Your task to perform on an android device: star an email in the gmail app Image 0: 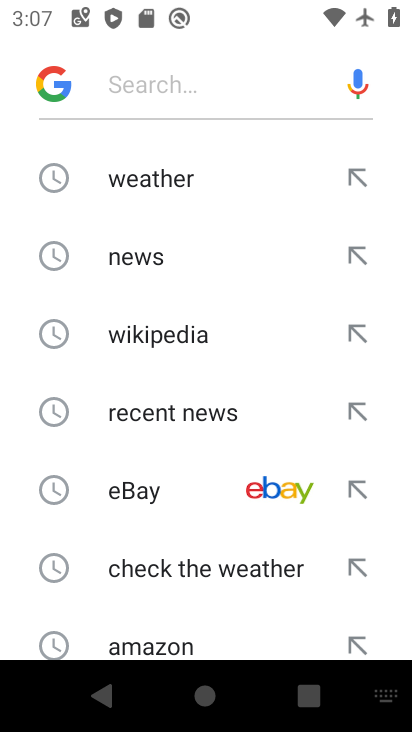
Step 0: press home button
Your task to perform on an android device: star an email in the gmail app Image 1: 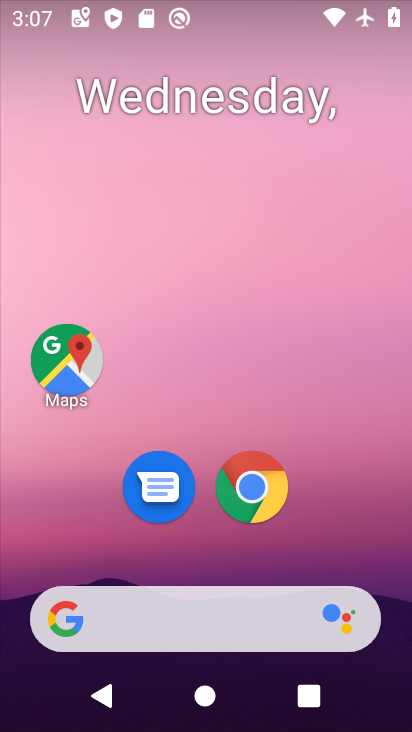
Step 1: drag from (364, 475) to (367, 101)
Your task to perform on an android device: star an email in the gmail app Image 2: 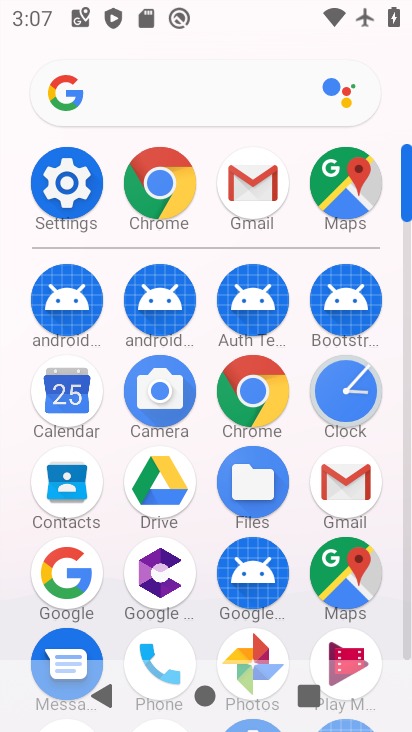
Step 2: click (283, 173)
Your task to perform on an android device: star an email in the gmail app Image 3: 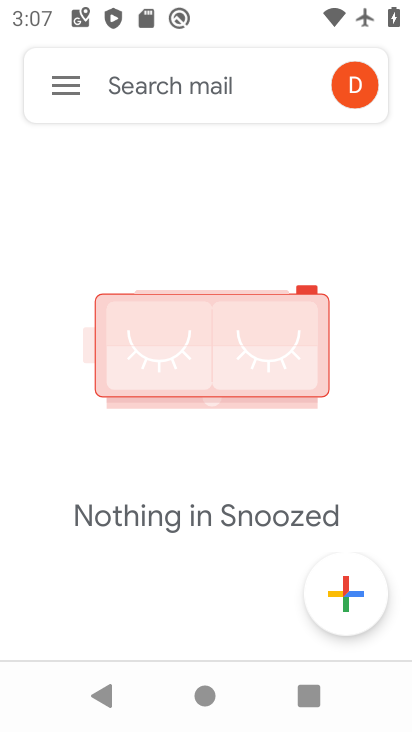
Step 3: click (58, 109)
Your task to perform on an android device: star an email in the gmail app Image 4: 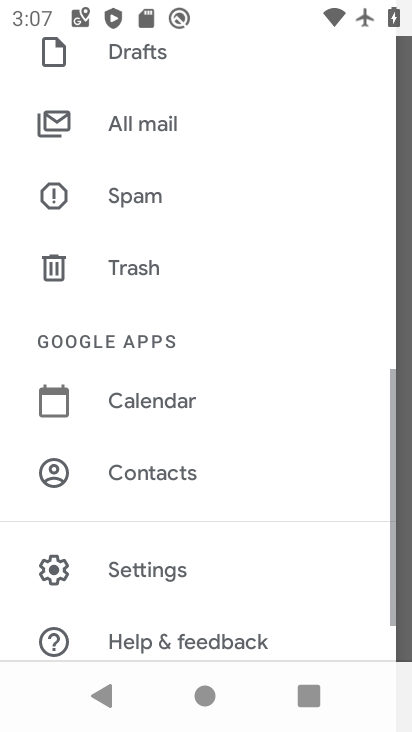
Step 4: drag from (109, 408) to (155, 640)
Your task to perform on an android device: star an email in the gmail app Image 5: 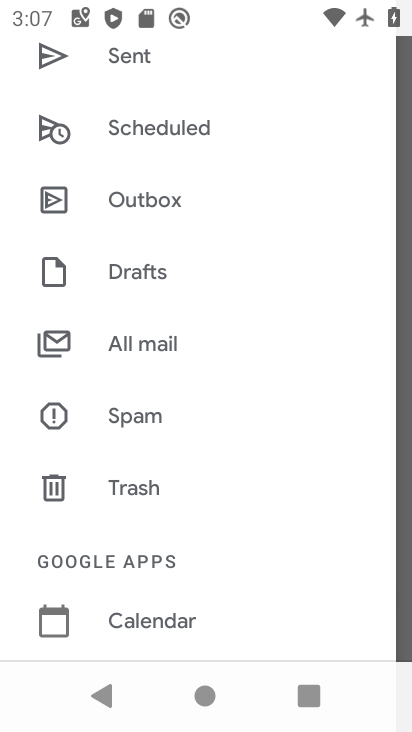
Step 5: drag from (212, 149) to (251, 577)
Your task to perform on an android device: star an email in the gmail app Image 6: 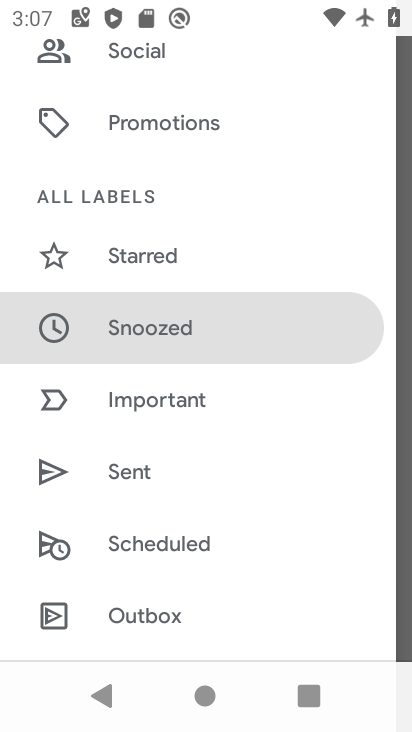
Step 6: drag from (276, 106) to (280, 598)
Your task to perform on an android device: star an email in the gmail app Image 7: 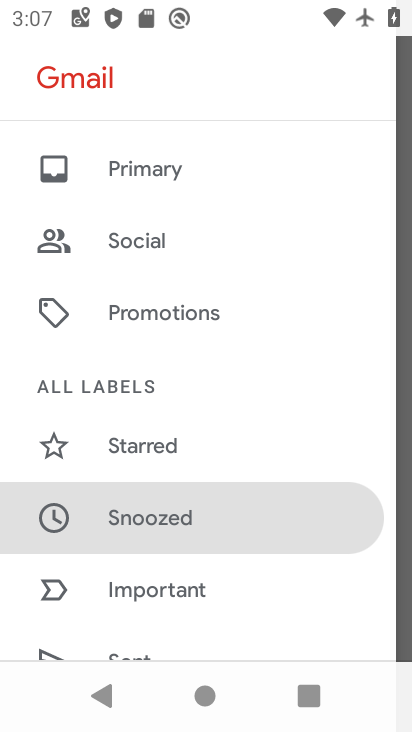
Step 7: drag from (161, 529) to (204, 176)
Your task to perform on an android device: star an email in the gmail app Image 8: 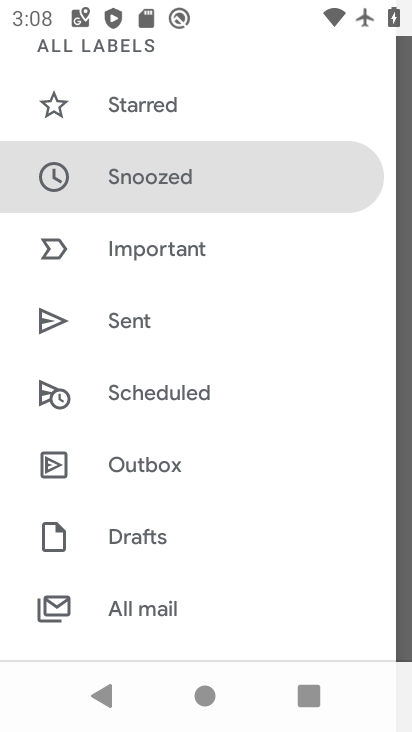
Step 8: click (149, 612)
Your task to perform on an android device: star an email in the gmail app Image 9: 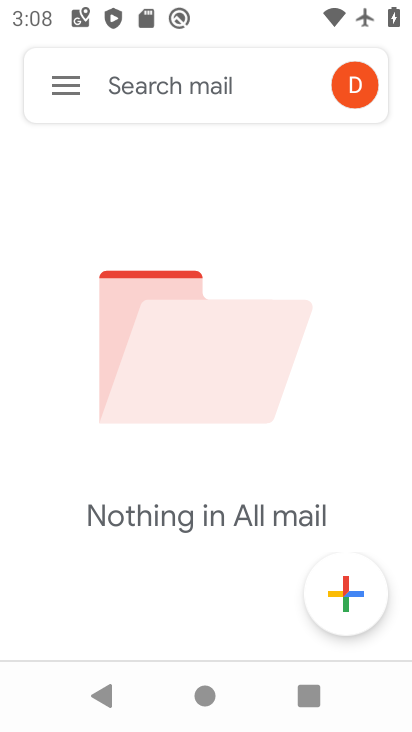
Step 9: click (149, 608)
Your task to perform on an android device: star an email in the gmail app Image 10: 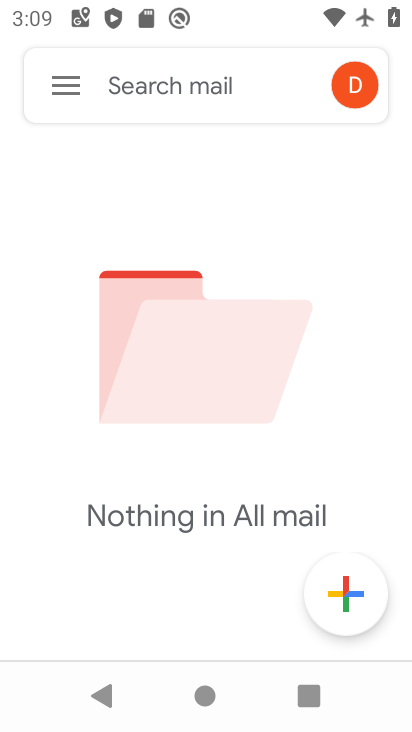
Step 10: task complete